Your task to perform on an android device: Go to Maps Image 0: 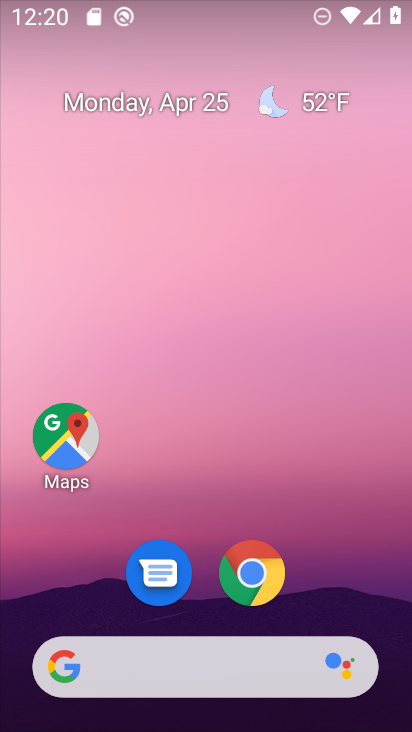
Step 0: drag from (206, 724) to (183, 104)
Your task to perform on an android device: Go to Maps Image 1: 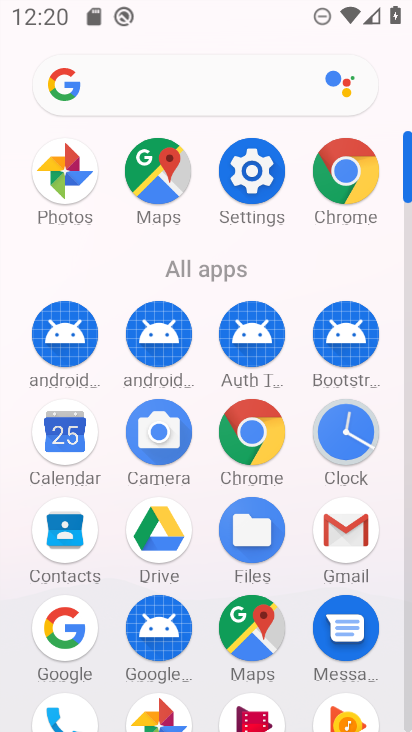
Step 1: click (253, 632)
Your task to perform on an android device: Go to Maps Image 2: 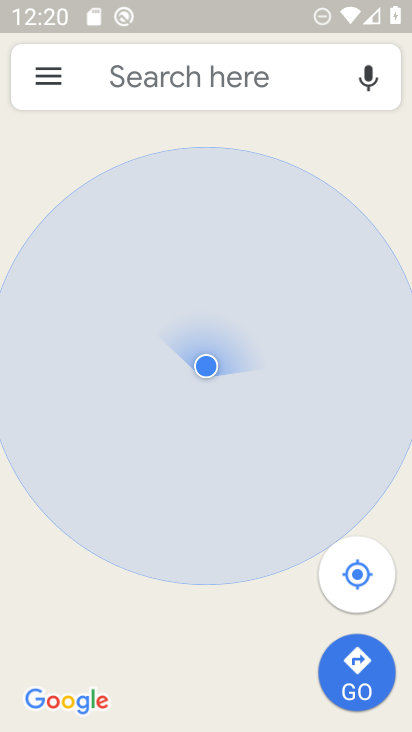
Step 2: task complete